Your task to perform on an android device: Empty the shopping cart on newegg. Add "bose soundlink mini" to the cart on newegg Image 0: 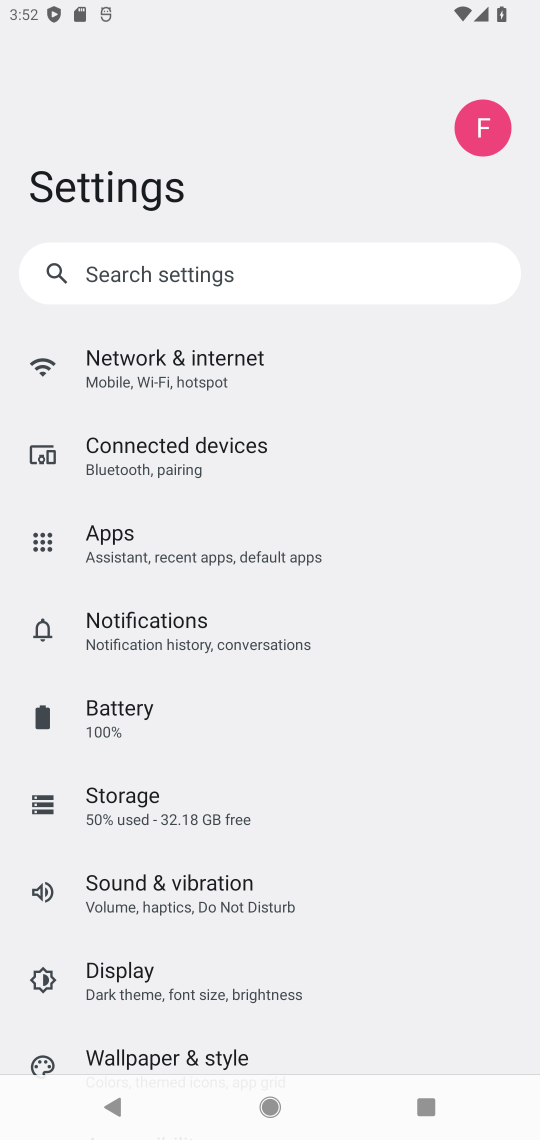
Step 0: press home button
Your task to perform on an android device: Empty the shopping cart on newegg. Add "bose soundlink mini" to the cart on newegg Image 1: 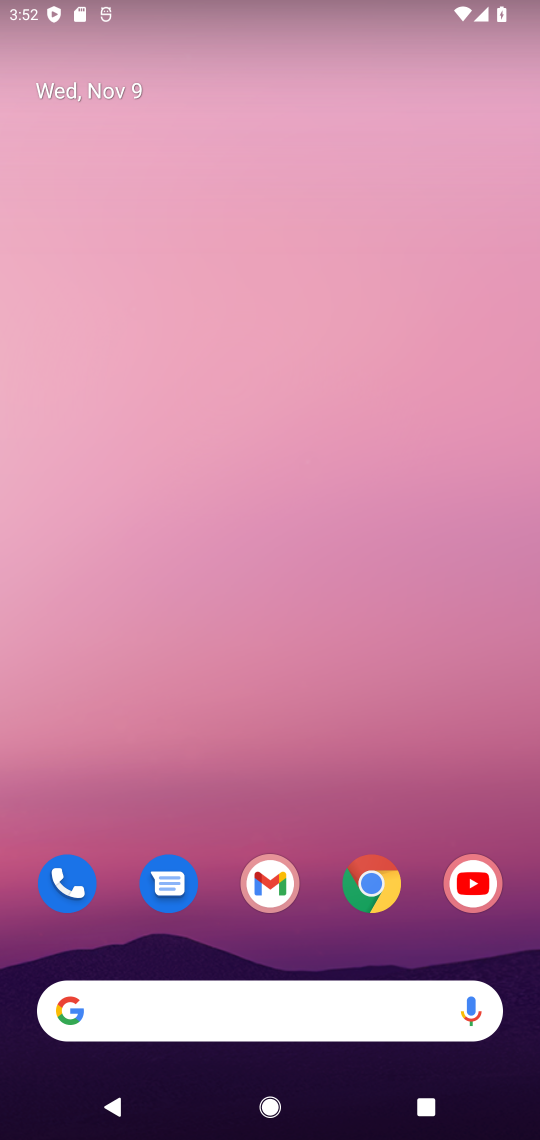
Step 1: click (361, 889)
Your task to perform on an android device: Empty the shopping cart on newegg. Add "bose soundlink mini" to the cart on newegg Image 2: 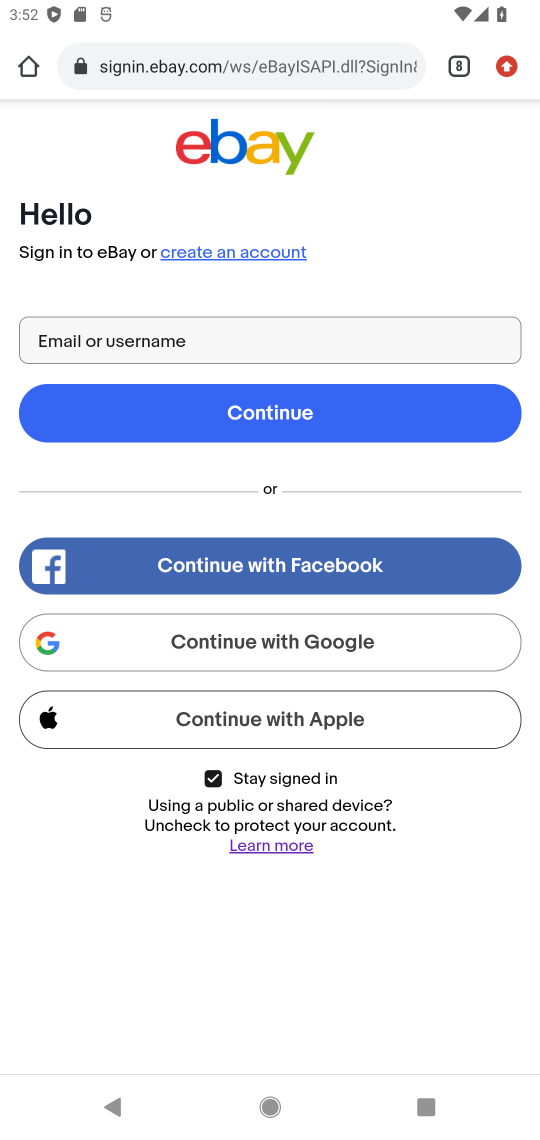
Step 2: click (458, 62)
Your task to perform on an android device: Empty the shopping cart on newegg. Add "bose soundlink mini" to the cart on newegg Image 3: 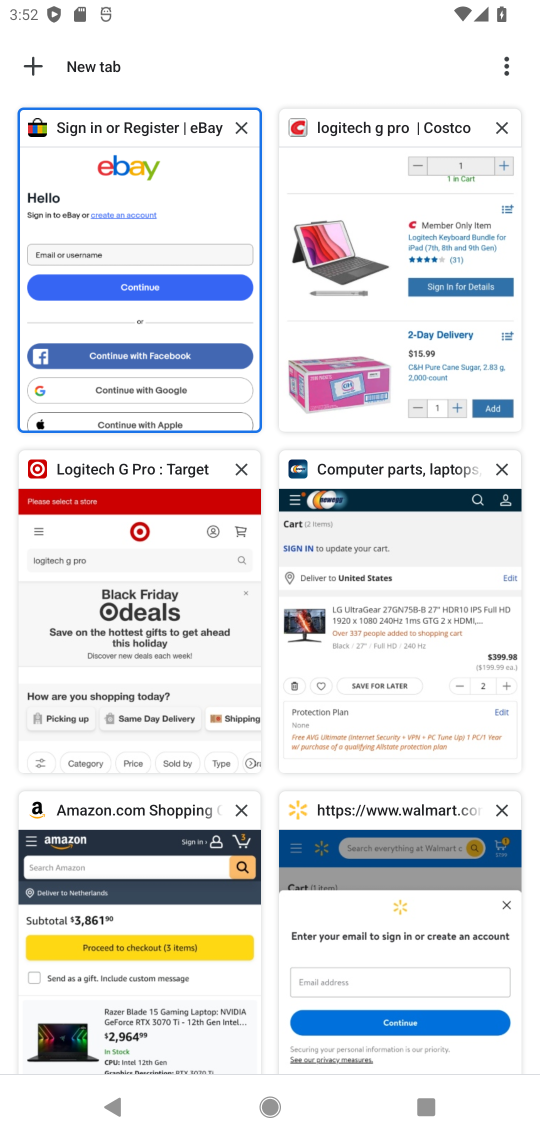
Step 3: click (360, 640)
Your task to perform on an android device: Empty the shopping cart on newegg. Add "bose soundlink mini" to the cart on newegg Image 4: 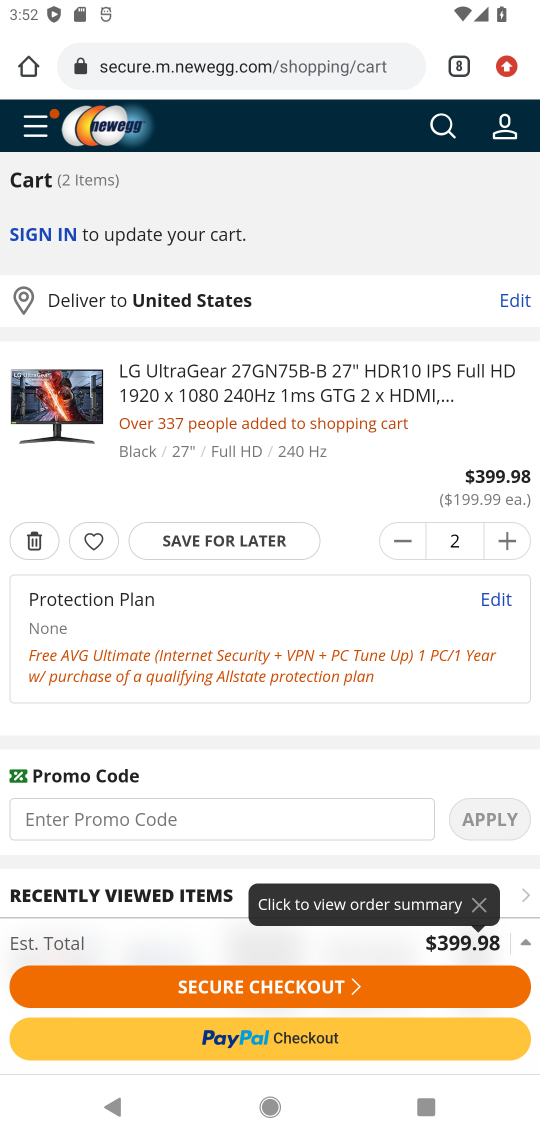
Step 4: click (28, 549)
Your task to perform on an android device: Empty the shopping cart on newegg. Add "bose soundlink mini" to the cart on newegg Image 5: 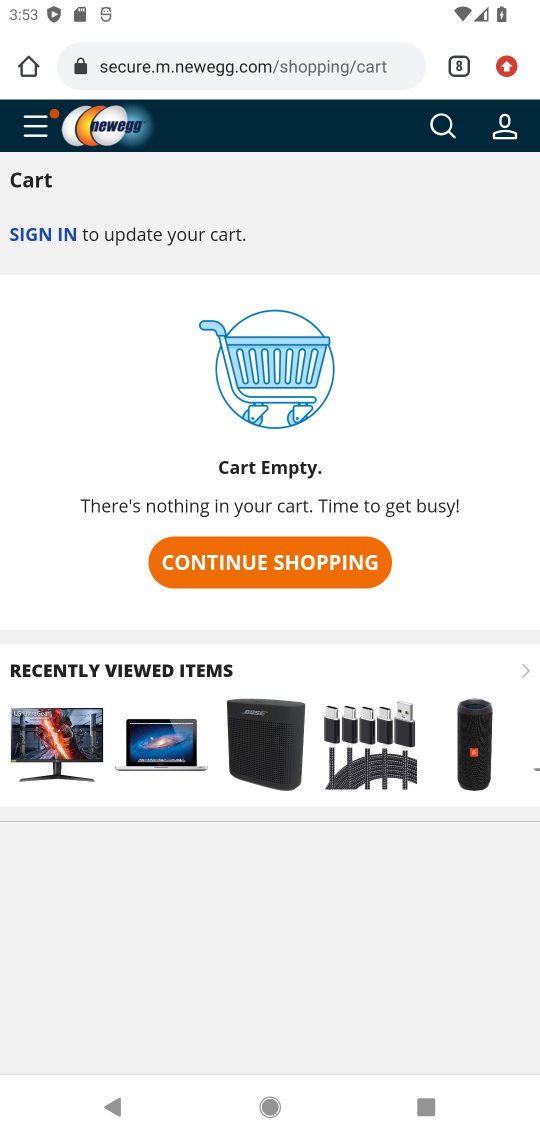
Step 5: click (443, 122)
Your task to perform on an android device: Empty the shopping cart on newegg. Add "bose soundlink mini" to the cart on newegg Image 6: 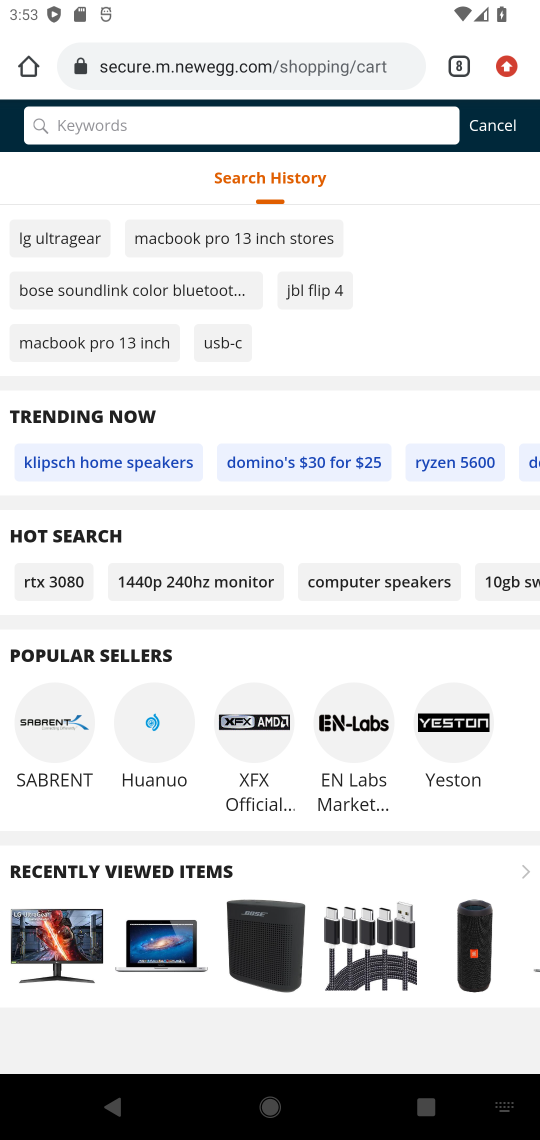
Step 6: type "bose soundlink mini"
Your task to perform on an android device: Empty the shopping cart on newegg. Add "bose soundlink mini" to the cart on newegg Image 7: 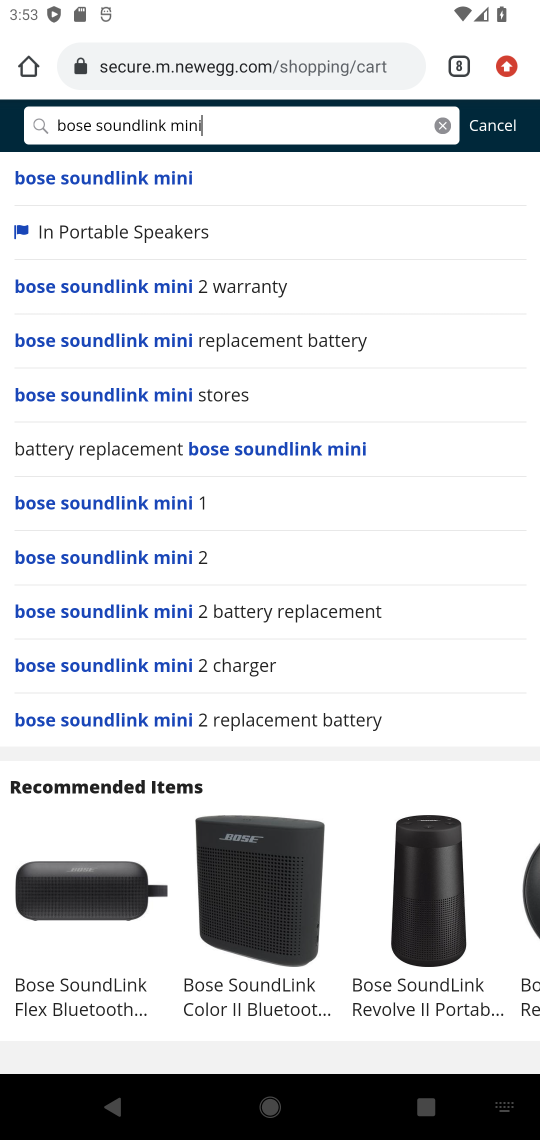
Step 7: click (147, 173)
Your task to perform on an android device: Empty the shopping cart on newegg. Add "bose soundlink mini" to the cart on newegg Image 8: 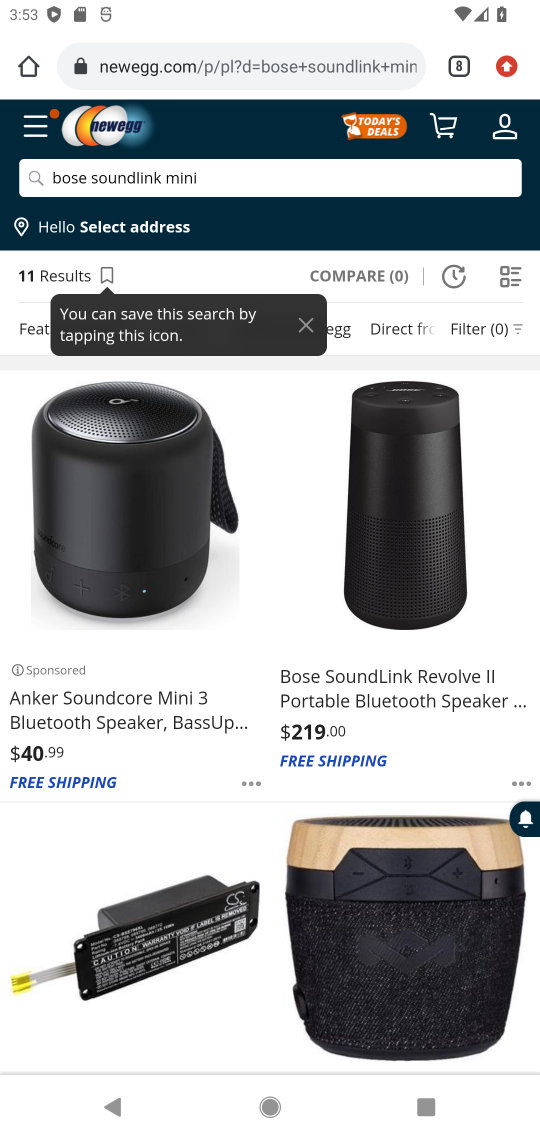
Step 8: click (316, 707)
Your task to perform on an android device: Empty the shopping cart on newegg. Add "bose soundlink mini" to the cart on newegg Image 9: 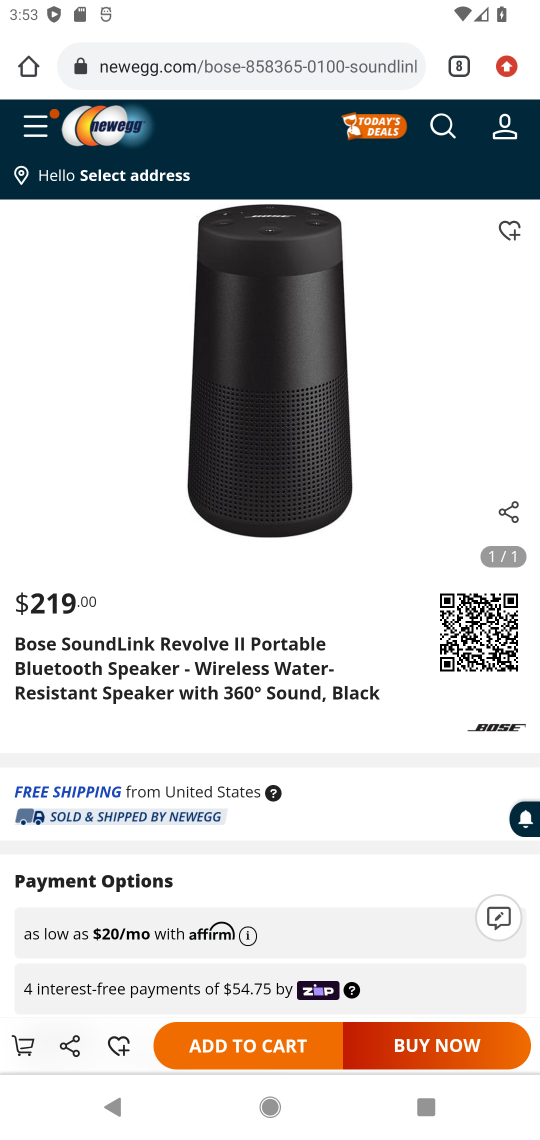
Step 9: click (255, 1045)
Your task to perform on an android device: Empty the shopping cart on newegg. Add "bose soundlink mini" to the cart on newegg Image 10: 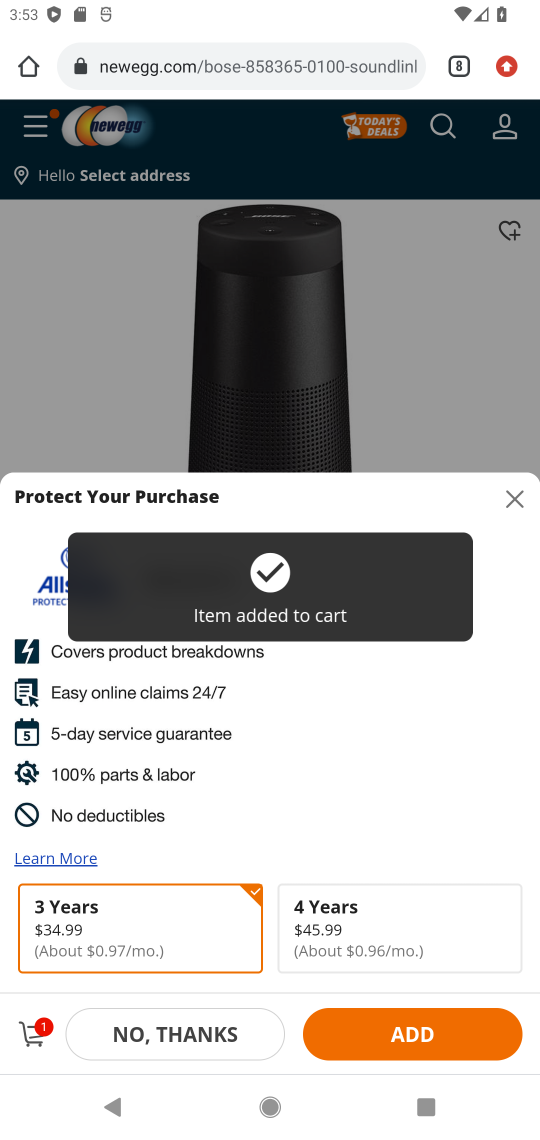
Step 10: task complete